Your task to perform on an android device: Go to Android settings Image 0: 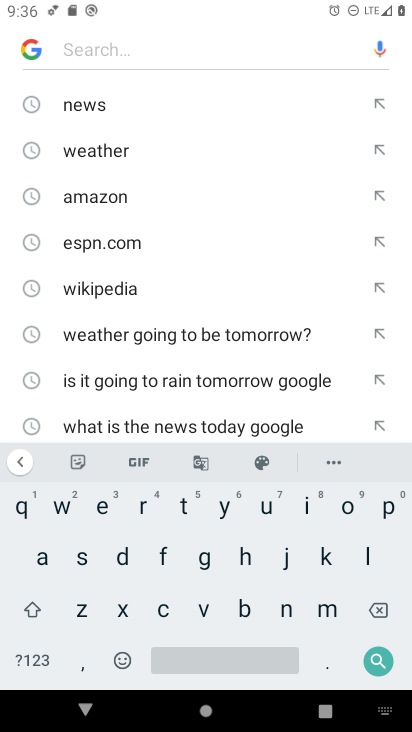
Step 0: press home button
Your task to perform on an android device: Go to Android settings Image 1: 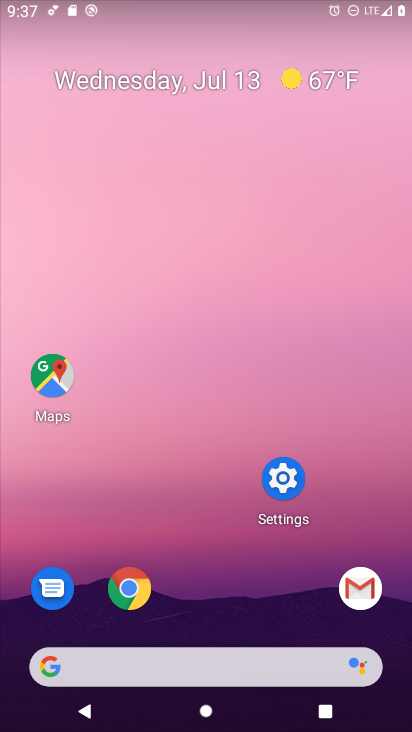
Step 1: click (300, 502)
Your task to perform on an android device: Go to Android settings Image 2: 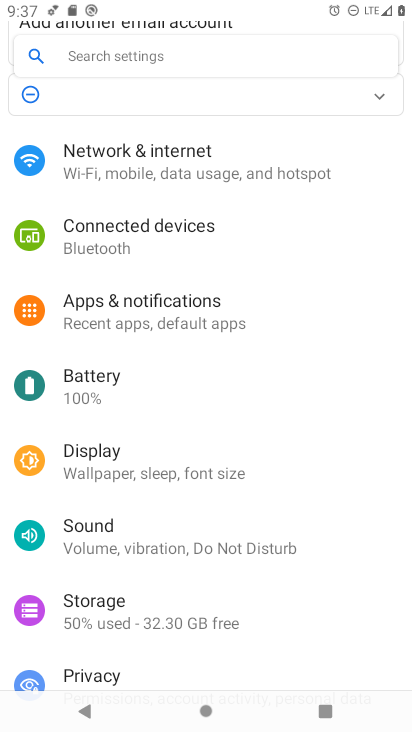
Step 2: click (120, 47)
Your task to perform on an android device: Go to Android settings Image 3: 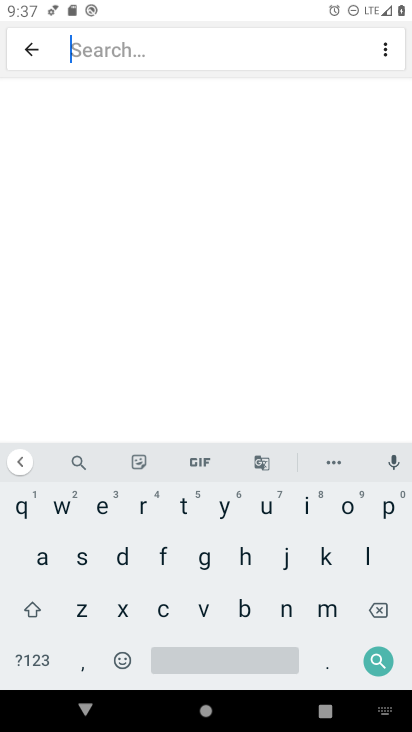
Step 3: click (43, 553)
Your task to perform on an android device: Go to Android settings Image 4: 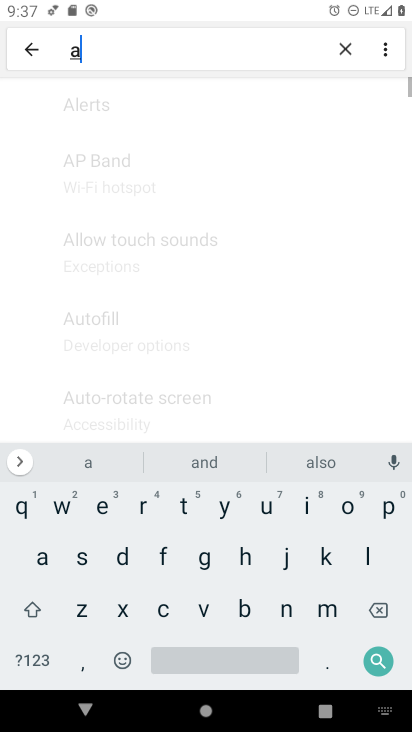
Step 4: click (285, 609)
Your task to perform on an android device: Go to Android settings Image 5: 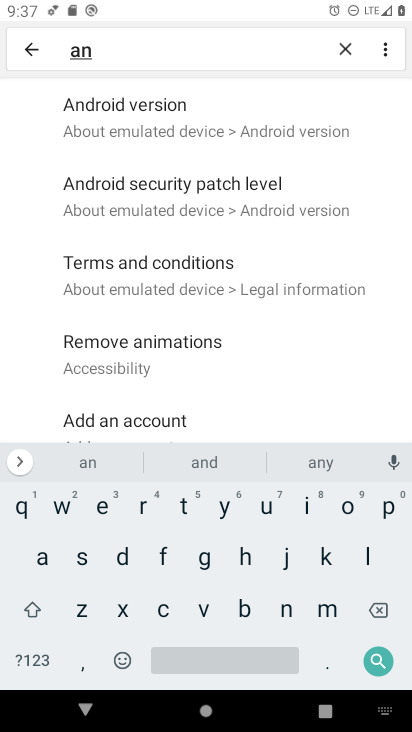
Step 5: click (168, 97)
Your task to perform on an android device: Go to Android settings Image 6: 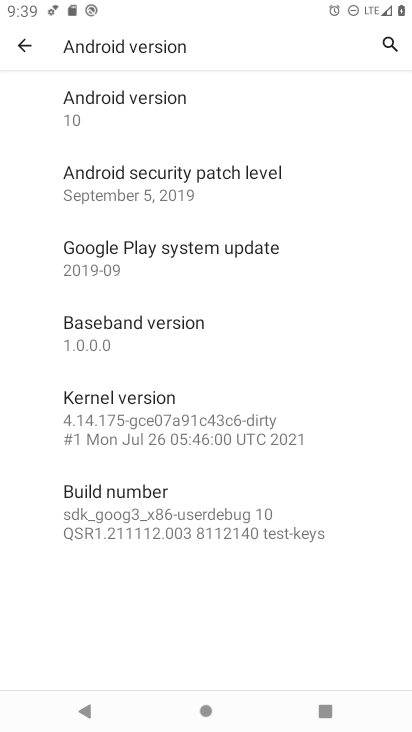
Step 6: task complete